Your task to perform on an android device: open a new tab in the chrome app Image 0: 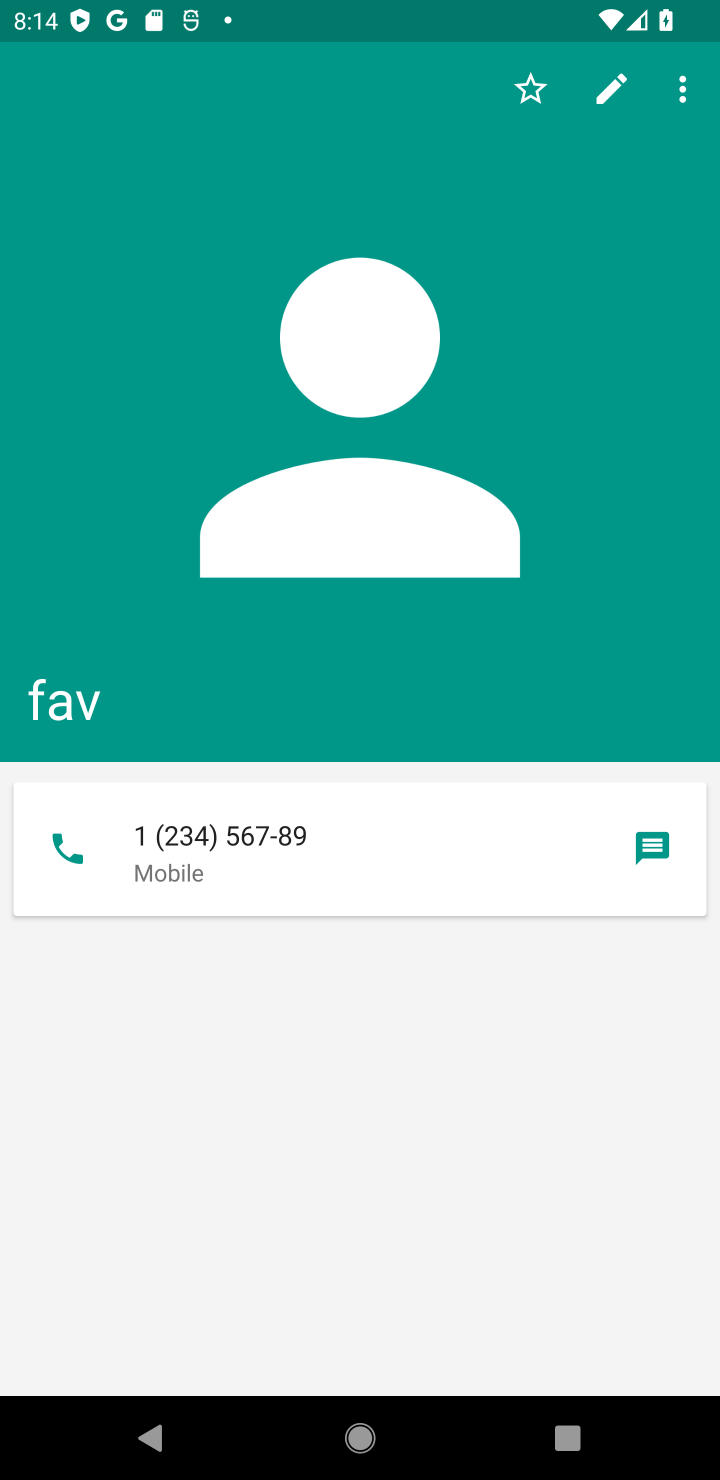
Step 0: press home button
Your task to perform on an android device: open a new tab in the chrome app Image 1: 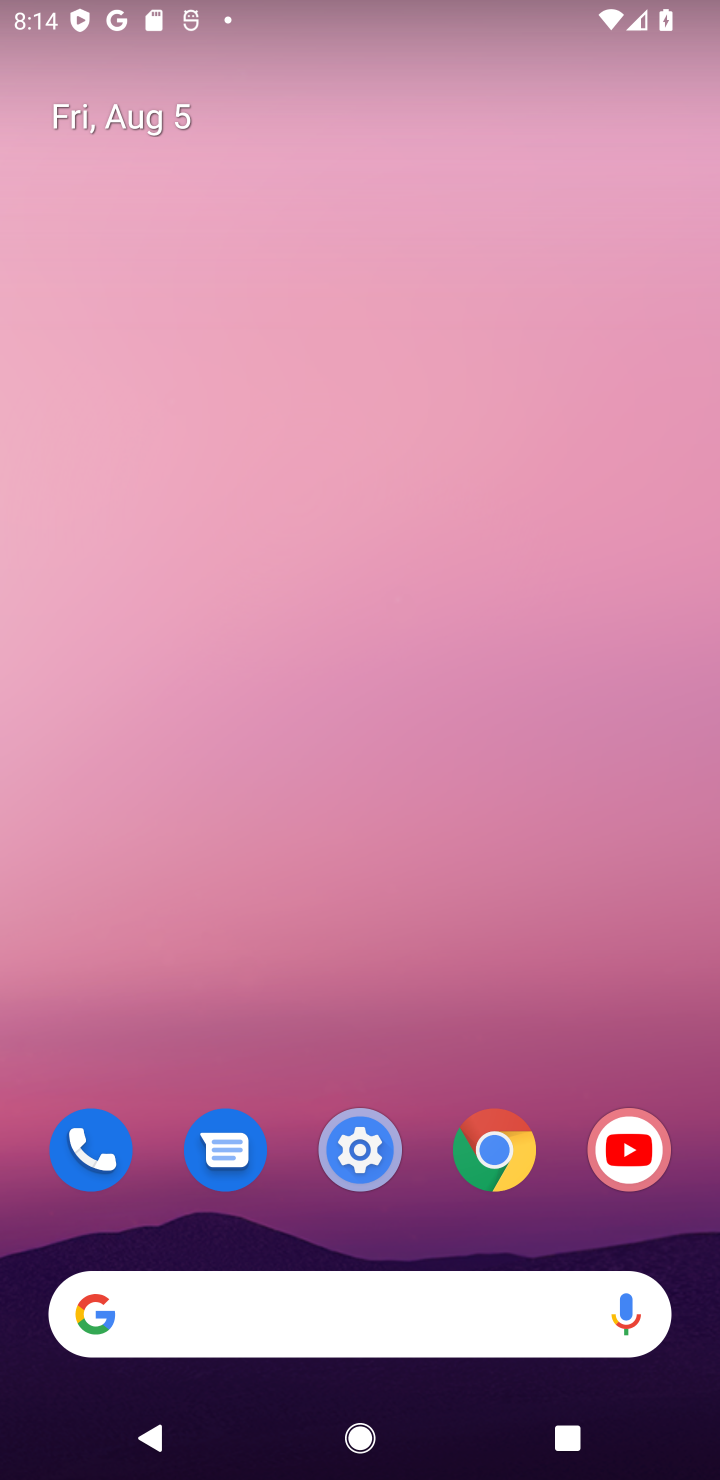
Step 1: drag from (300, 1069) to (302, 213)
Your task to perform on an android device: open a new tab in the chrome app Image 2: 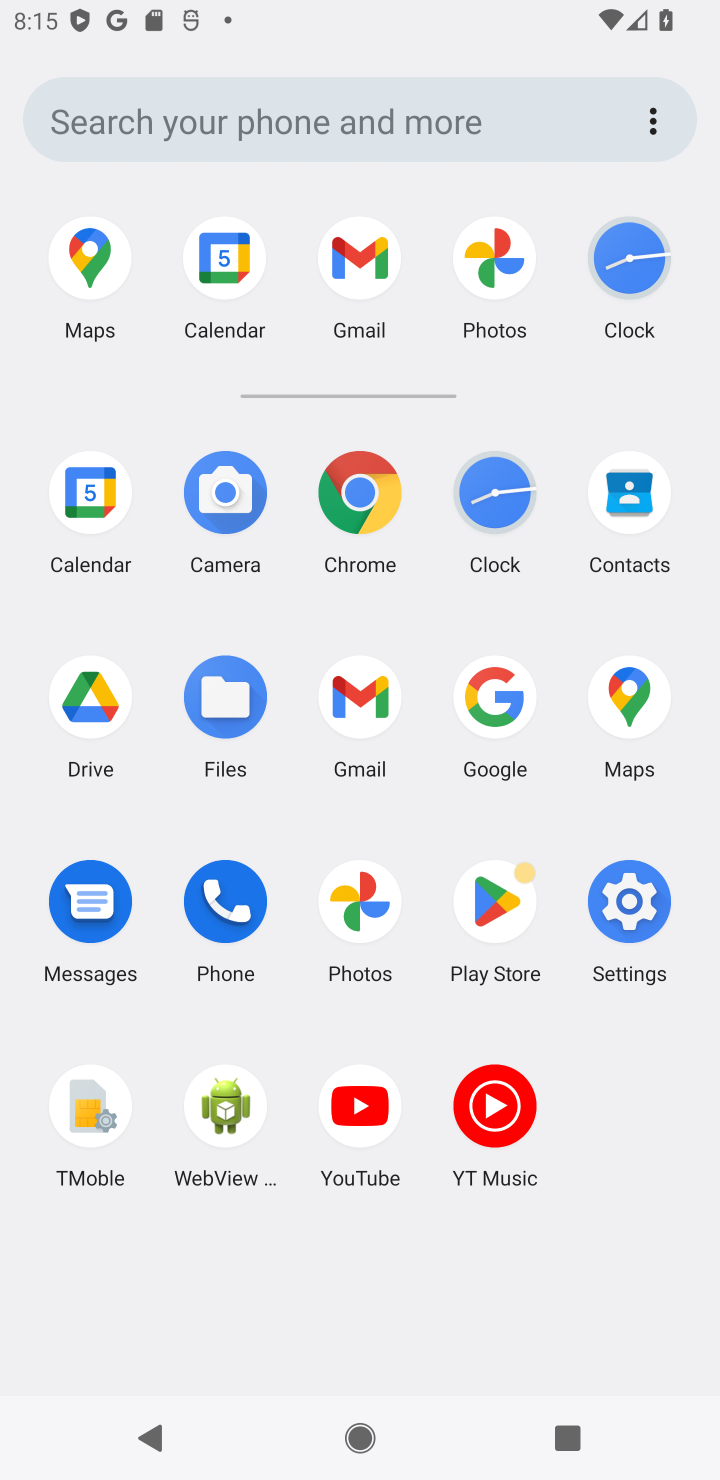
Step 2: click (378, 502)
Your task to perform on an android device: open a new tab in the chrome app Image 3: 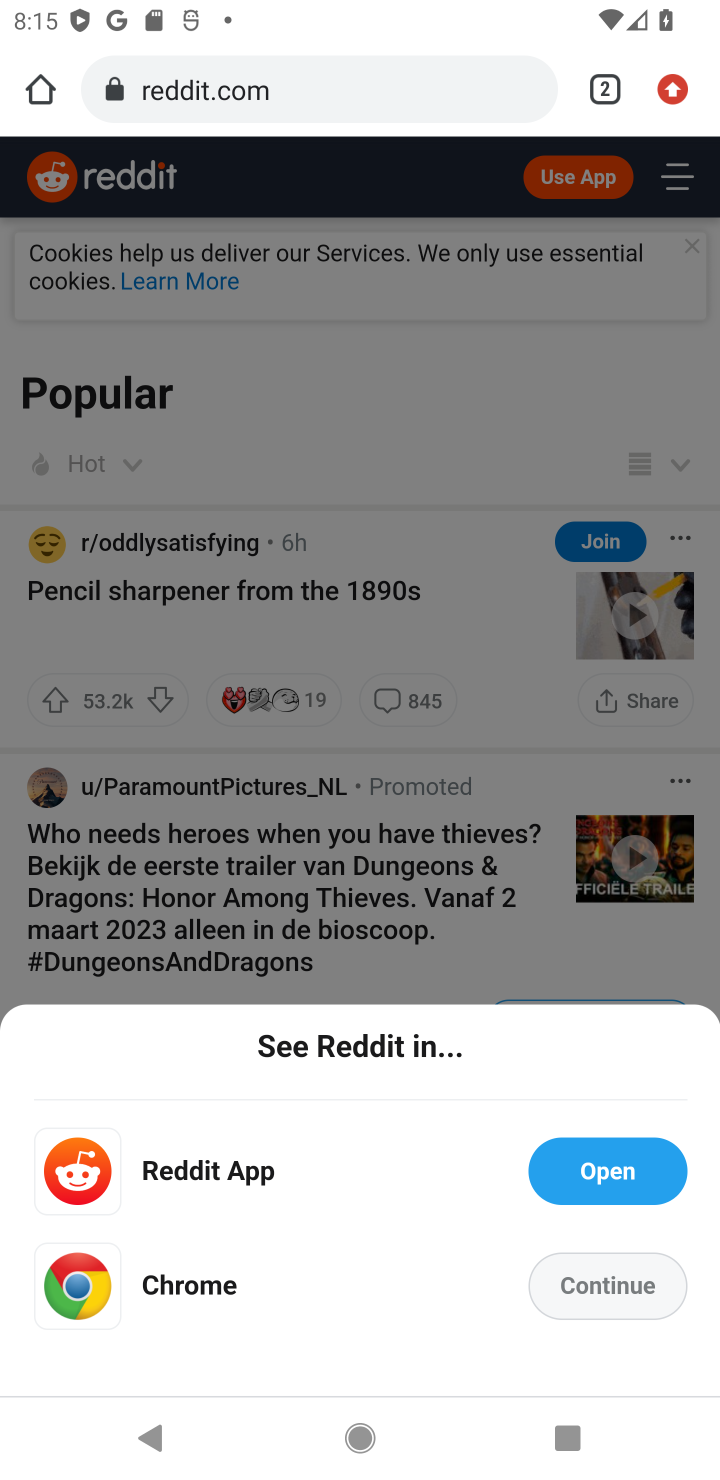
Step 3: click (676, 89)
Your task to perform on an android device: open a new tab in the chrome app Image 4: 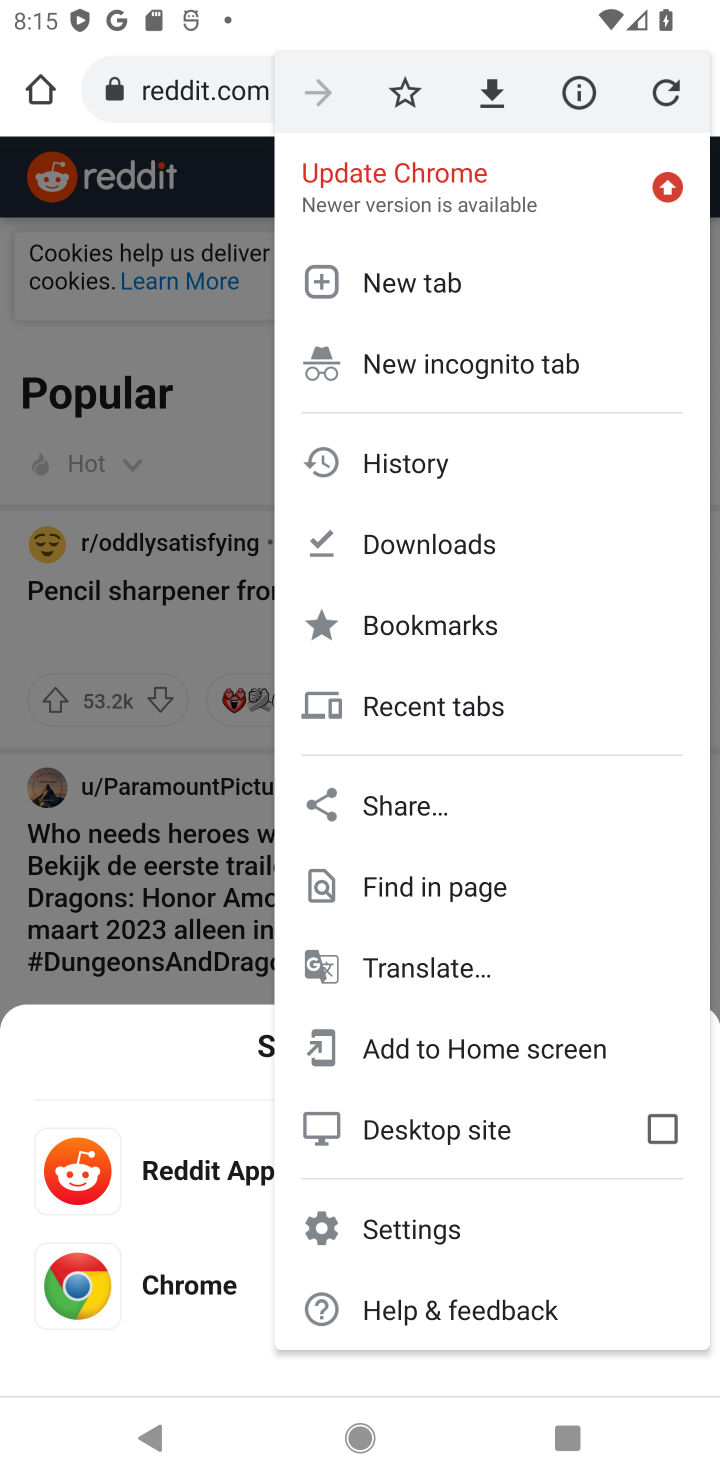
Step 4: click (456, 275)
Your task to perform on an android device: open a new tab in the chrome app Image 5: 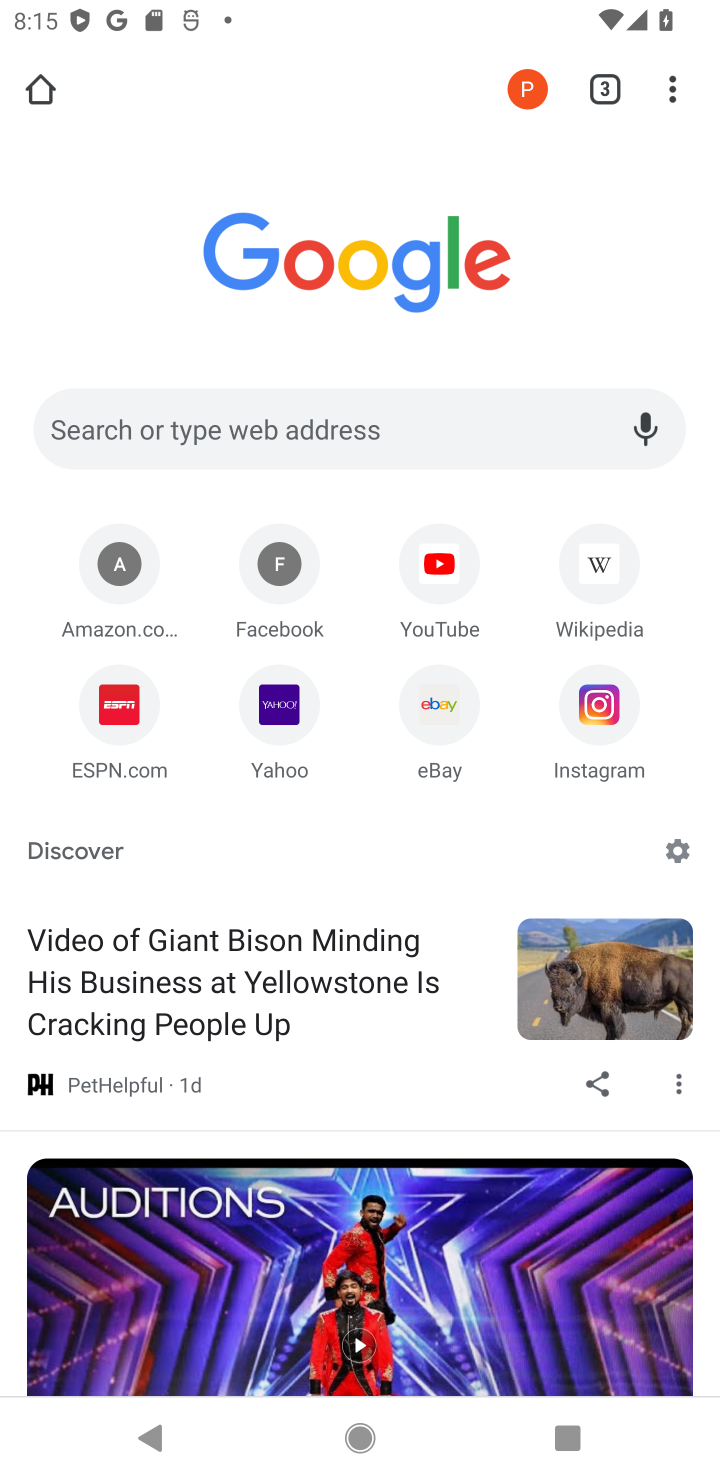
Step 5: task complete